Your task to perform on an android device: Search for sushi restaurants on Maps Image 0: 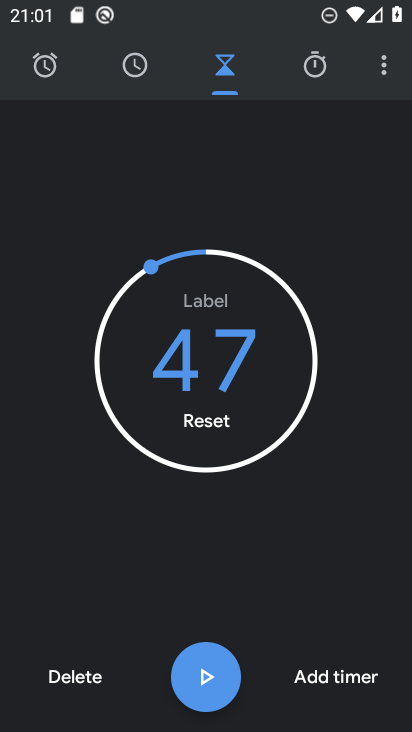
Step 0: press home button
Your task to perform on an android device: Search for sushi restaurants on Maps Image 1: 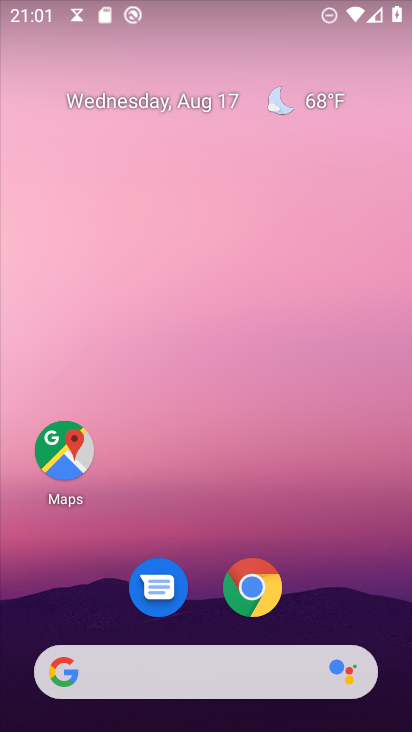
Step 1: click (113, 668)
Your task to perform on an android device: Search for sushi restaurants on Maps Image 2: 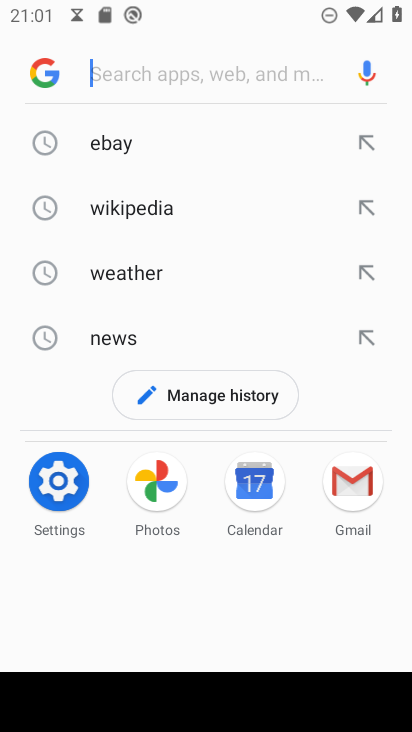
Step 2: type "sushi restaurants"
Your task to perform on an android device: Search for sushi restaurants on Maps Image 3: 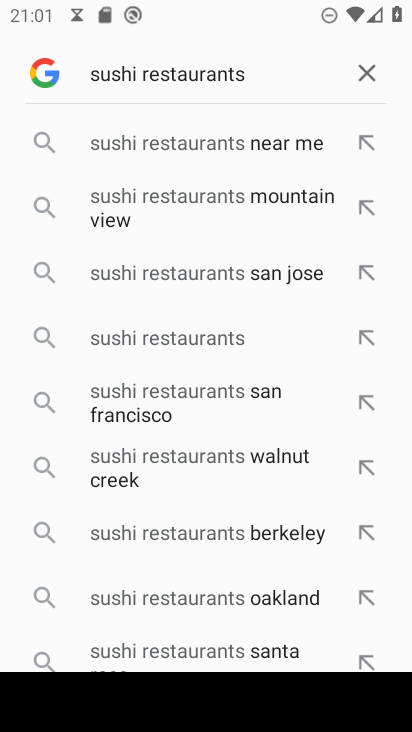
Step 3: click (142, 328)
Your task to perform on an android device: Search for sushi restaurants on Maps Image 4: 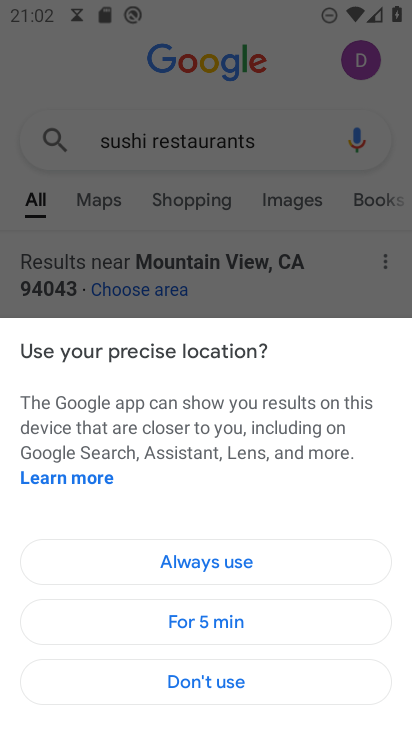
Step 4: task complete